Your task to perform on an android device: find snoozed emails in the gmail app Image 0: 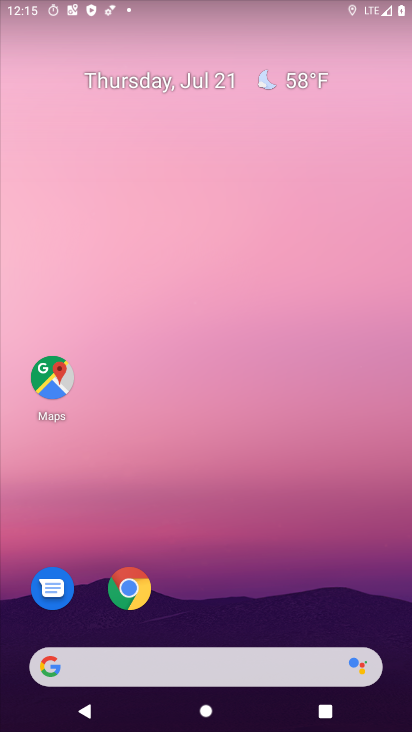
Step 0: drag from (262, 573) to (204, 114)
Your task to perform on an android device: find snoozed emails in the gmail app Image 1: 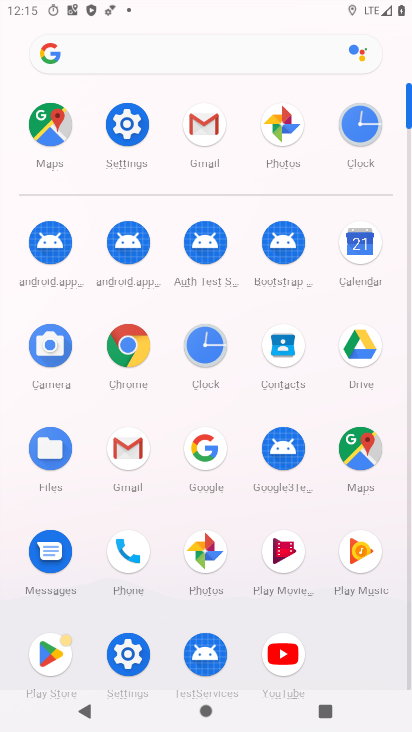
Step 1: click (116, 460)
Your task to perform on an android device: find snoozed emails in the gmail app Image 2: 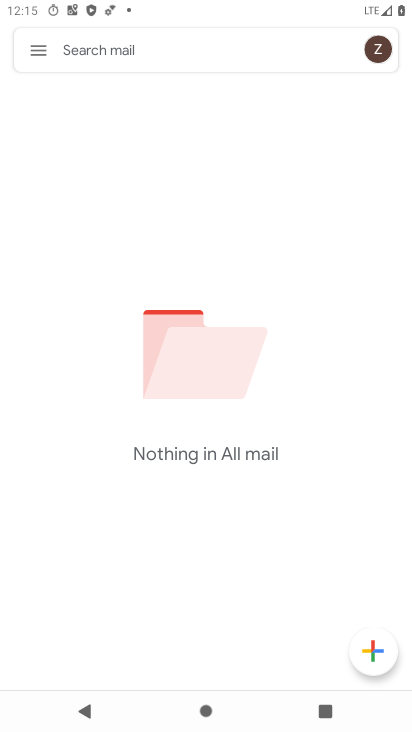
Step 2: click (35, 38)
Your task to perform on an android device: find snoozed emails in the gmail app Image 3: 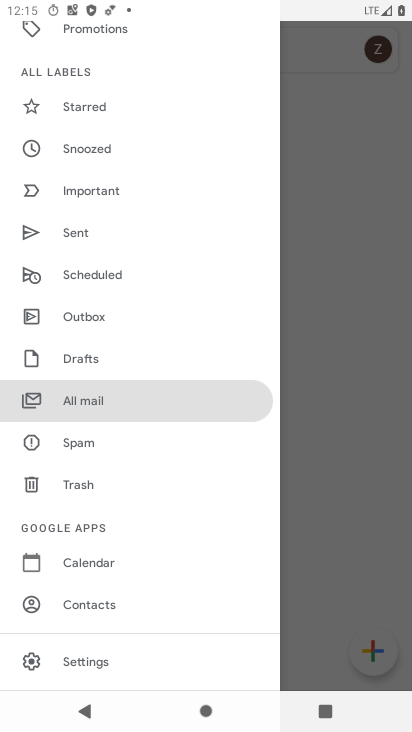
Step 3: click (92, 146)
Your task to perform on an android device: find snoozed emails in the gmail app Image 4: 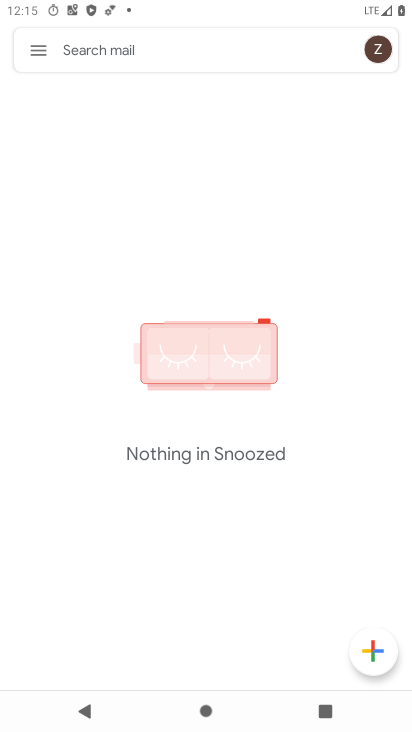
Step 4: task complete